Your task to perform on an android device: Open calendar and show me the fourth week of next month Image 0: 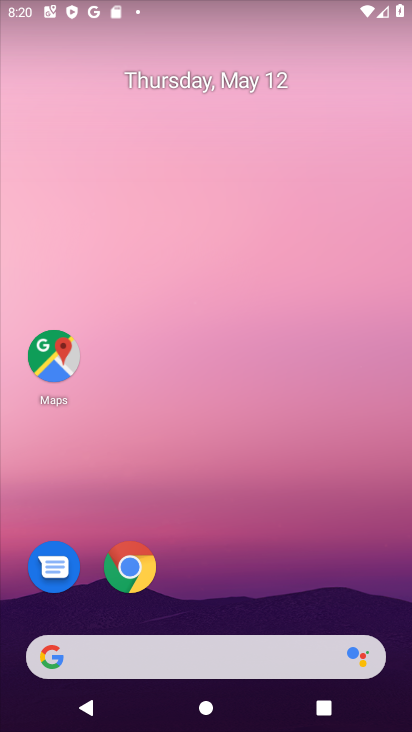
Step 0: drag from (222, 616) to (191, 303)
Your task to perform on an android device: Open calendar and show me the fourth week of next month Image 1: 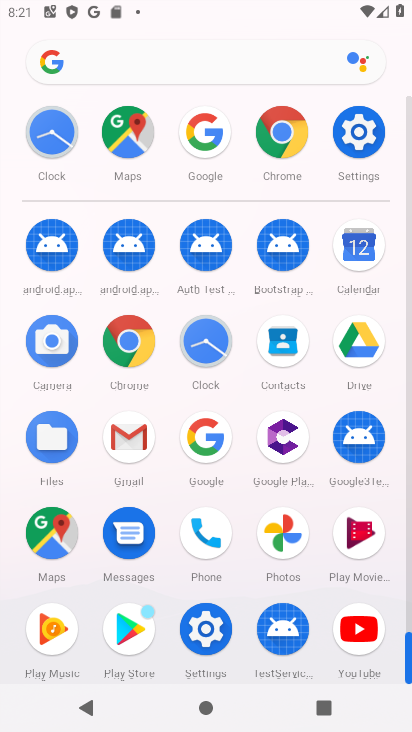
Step 1: drag from (159, 491) to (173, 313)
Your task to perform on an android device: Open calendar and show me the fourth week of next month Image 2: 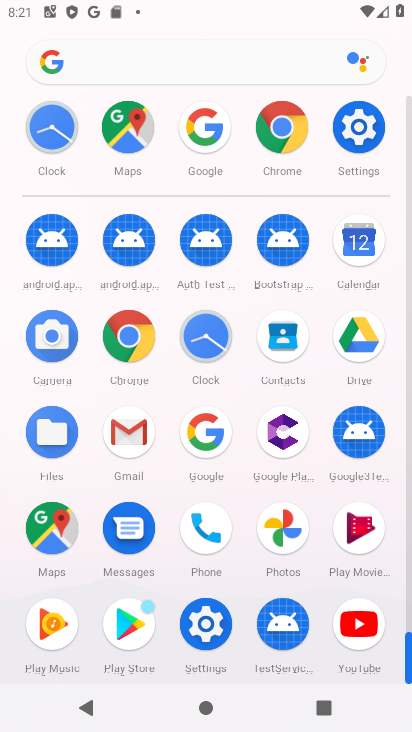
Step 2: drag from (151, 431) to (151, 351)
Your task to perform on an android device: Open calendar and show me the fourth week of next month Image 3: 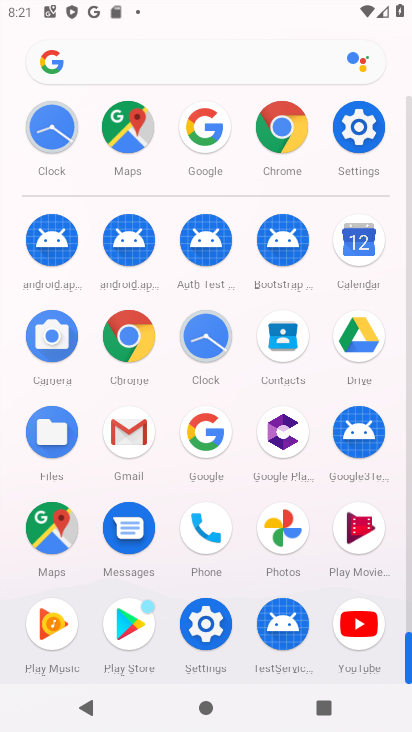
Step 3: click (366, 269)
Your task to perform on an android device: Open calendar and show me the fourth week of next month Image 4: 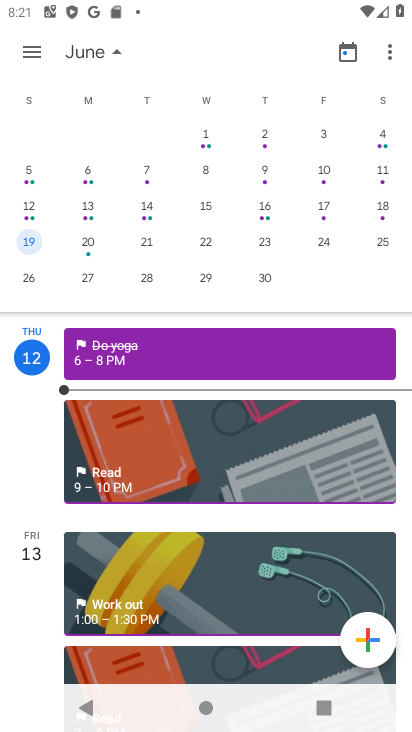
Step 4: click (31, 272)
Your task to perform on an android device: Open calendar and show me the fourth week of next month Image 5: 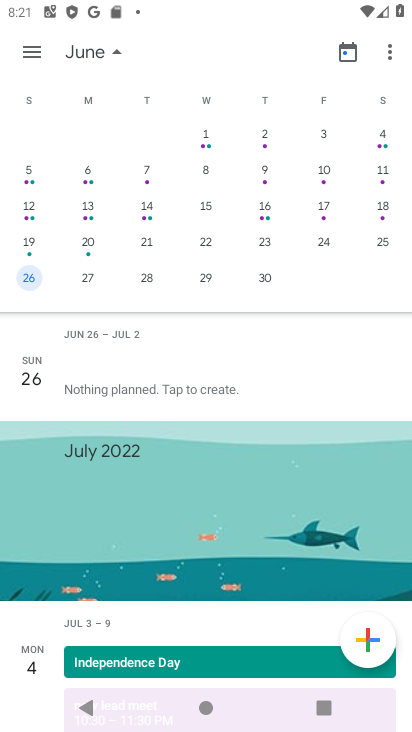
Step 5: task complete